Your task to perform on an android device: Open sound settings Image 0: 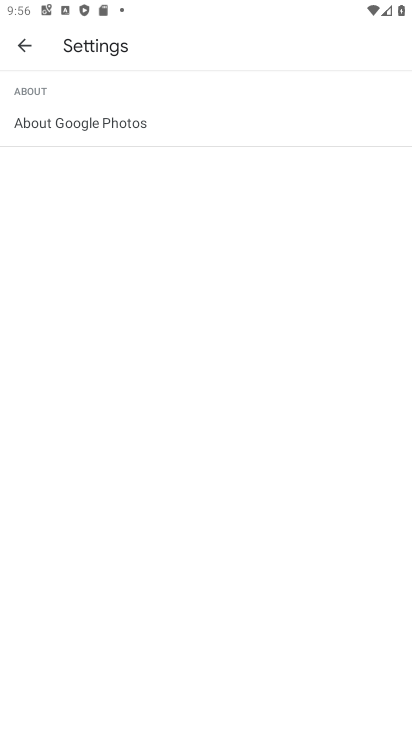
Step 0: press home button
Your task to perform on an android device: Open sound settings Image 1: 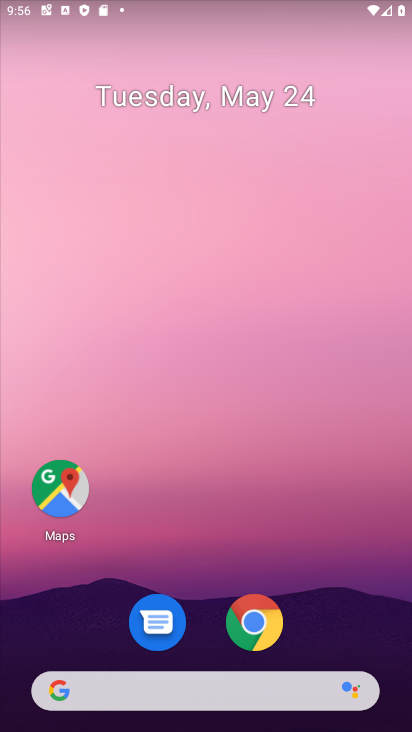
Step 1: drag from (210, 714) to (323, 119)
Your task to perform on an android device: Open sound settings Image 2: 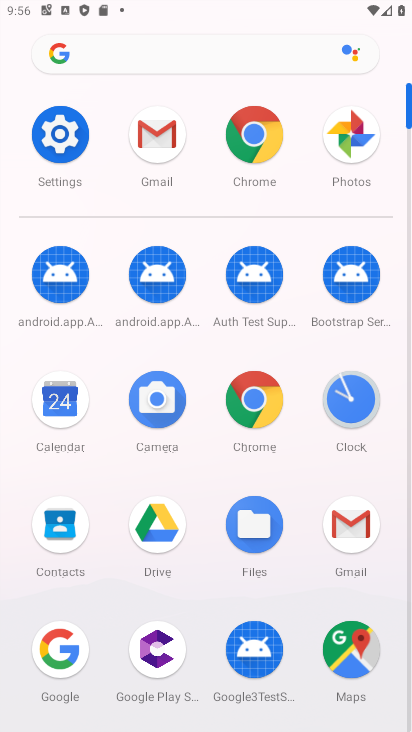
Step 2: click (67, 134)
Your task to perform on an android device: Open sound settings Image 3: 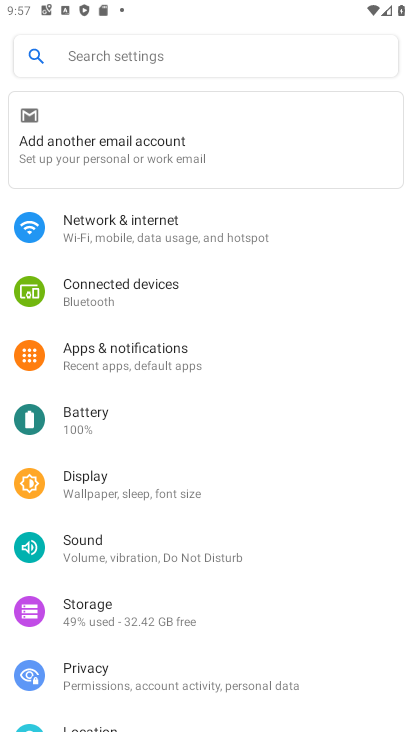
Step 3: click (107, 65)
Your task to perform on an android device: Open sound settings Image 4: 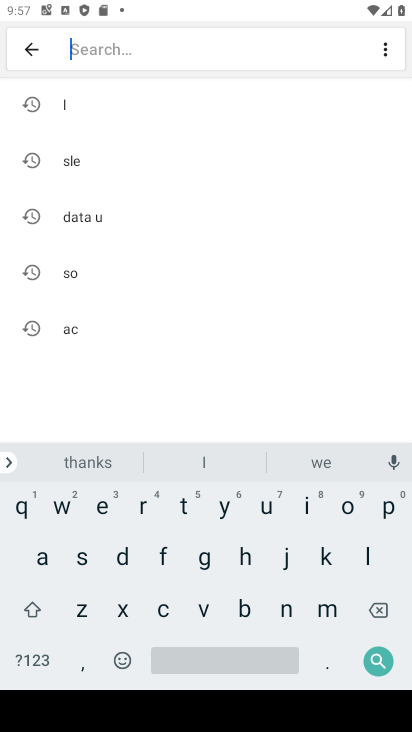
Step 4: click (85, 268)
Your task to perform on an android device: Open sound settings Image 5: 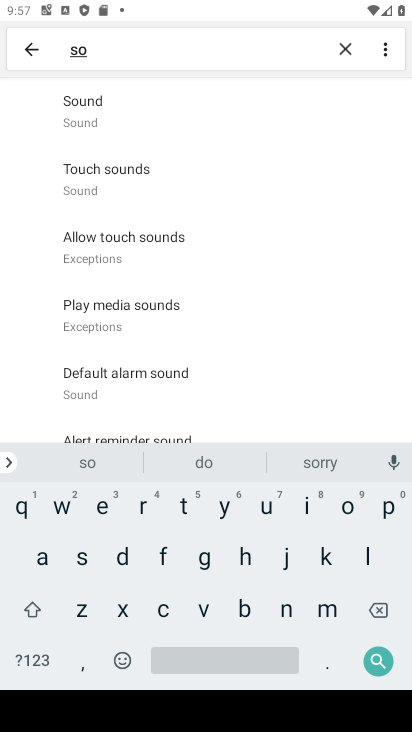
Step 5: click (112, 123)
Your task to perform on an android device: Open sound settings Image 6: 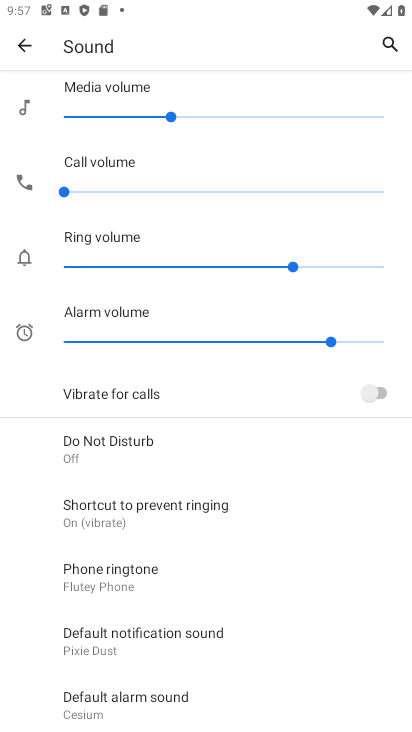
Step 6: task complete